Your task to perform on an android device: toggle sleep mode Image 0: 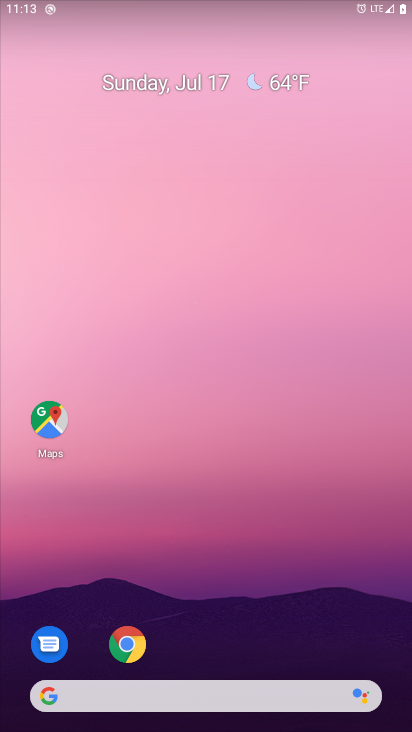
Step 0: press home button
Your task to perform on an android device: toggle sleep mode Image 1: 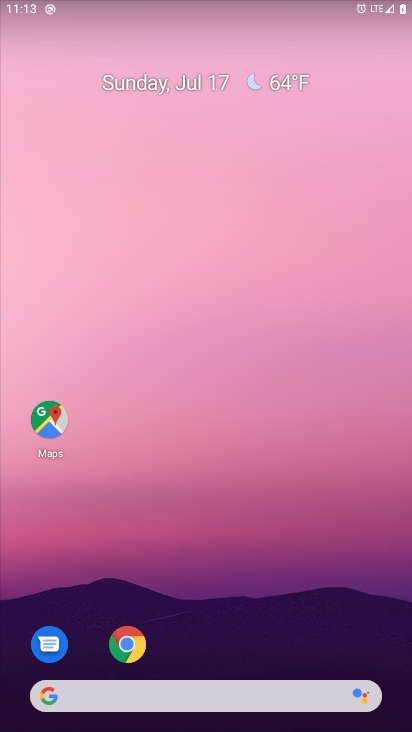
Step 1: drag from (276, 636) to (335, 103)
Your task to perform on an android device: toggle sleep mode Image 2: 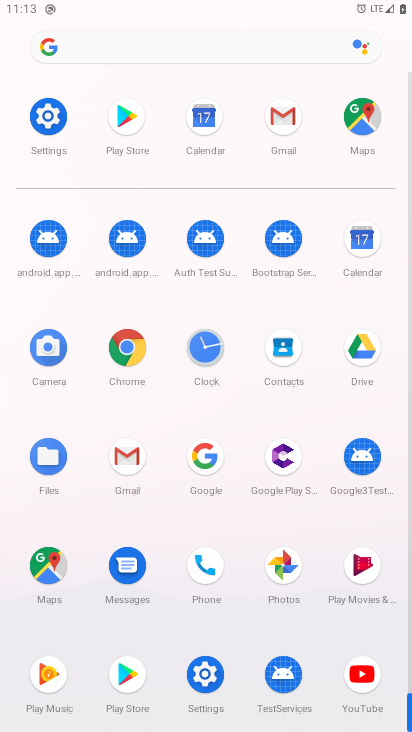
Step 2: click (46, 123)
Your task to perform on an android device: toggle sleep mode Image 3: 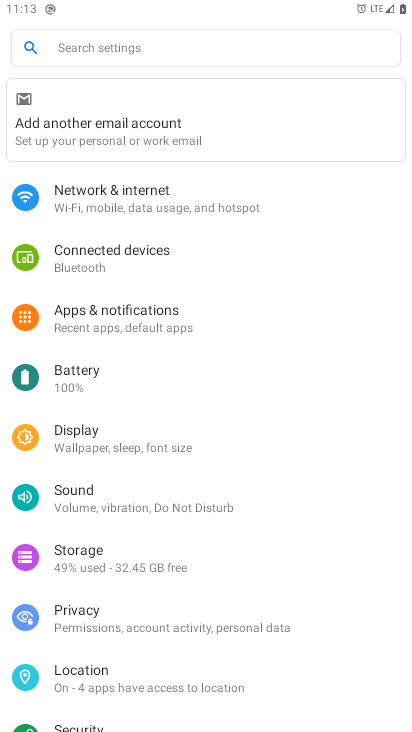
Step 3: click (126, 447)
Your task to perform on an android device: toggle sleep mode Image 4: 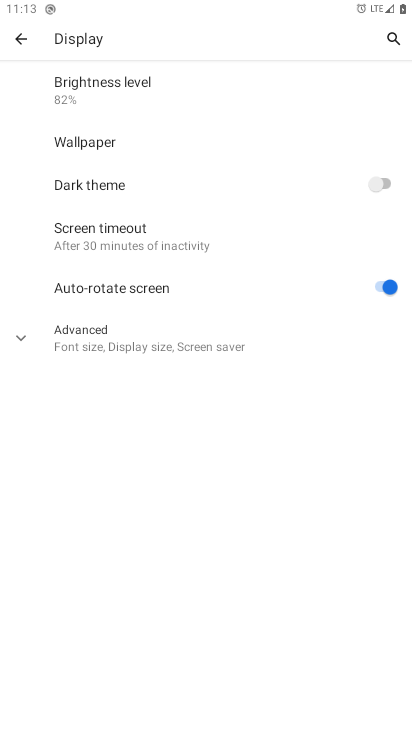
Step 4: click (42, 347)
Your task to perform on an android device: toggle sleep mode Image 5: 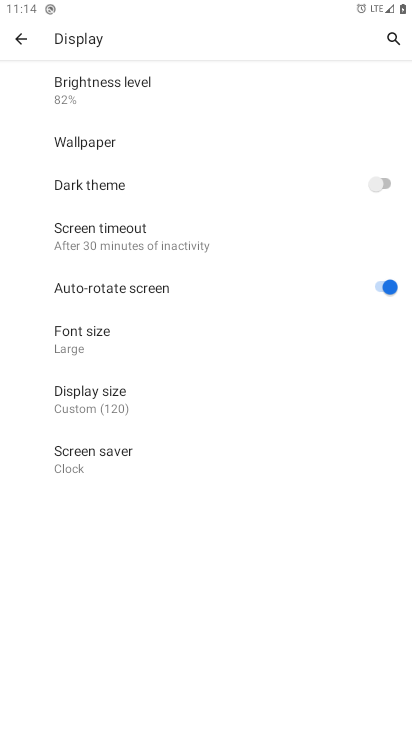
Step 5: task complete